Your task to perform on an android device: Go to Reddit.com Image 0: 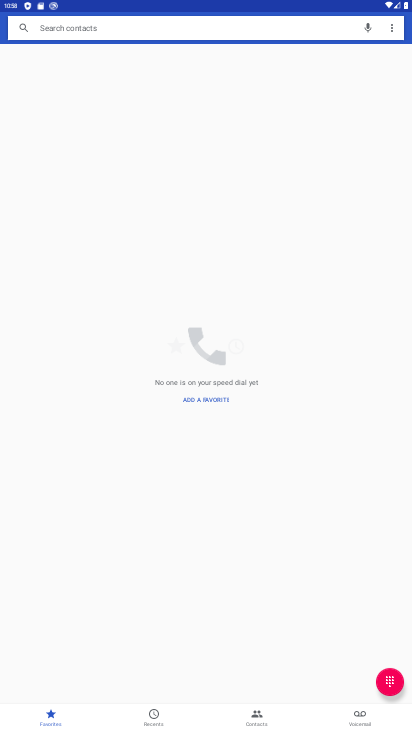
Step 0: press home button
Your task to perform on an android device: Go to Reddit.com Image 1: 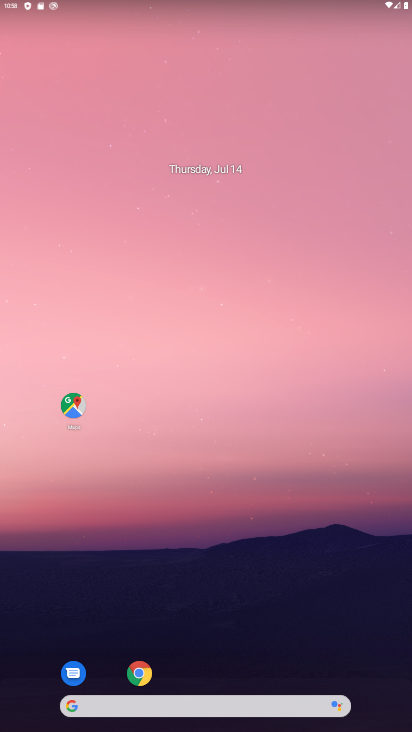
Step 1: click (142, 676)
Your task to perform on an android device: Go to Reddit.com Image 2: 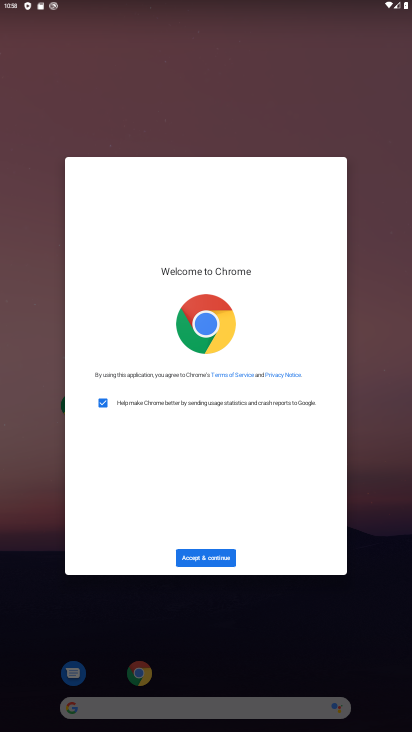
Step 2: click (219, 559)
Your task to perform on an android device: Go to Reddit.com Image 3: 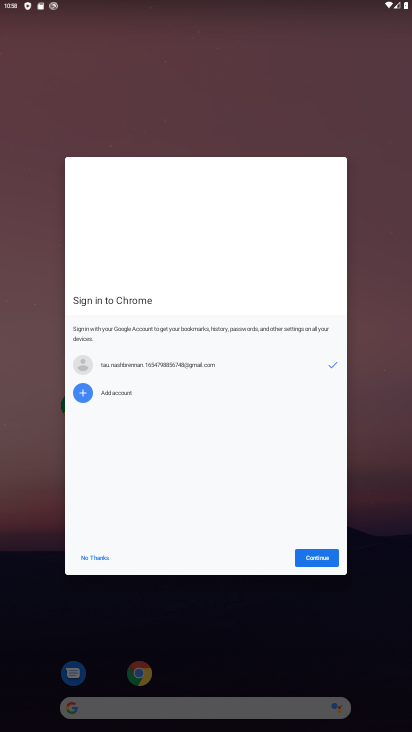
Step 3: click (315, 561)
Your task to perform on an android device: Go to Reddit.com Image 4: 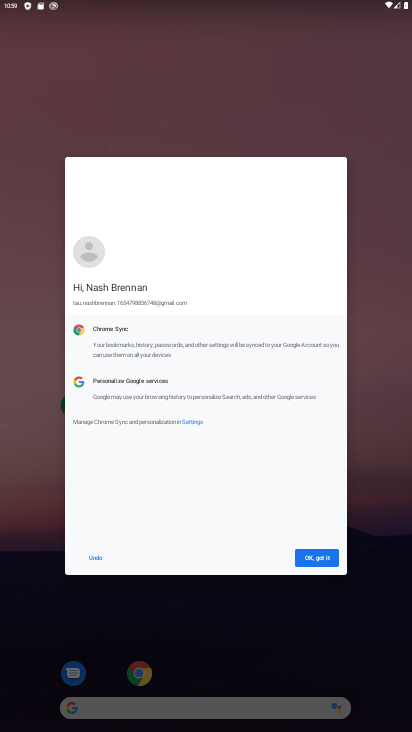
Step 4: click (315, 561)
Your task to perform on an android device: Go to Reddit.com Image 5: 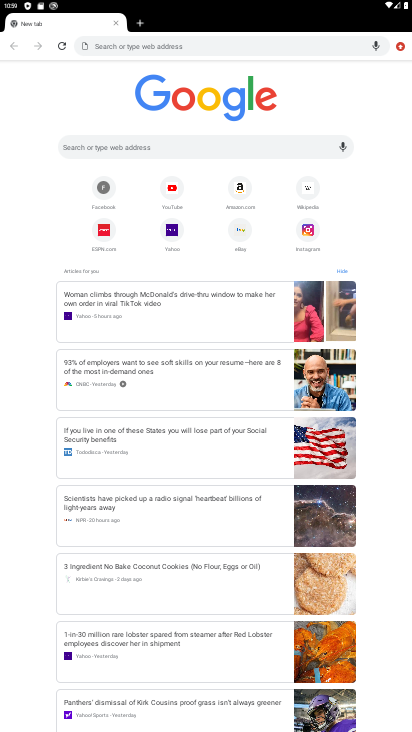
Step 5: click (222, 141)
Your task to perform on an android device: Go to Reddit.com Image 6: 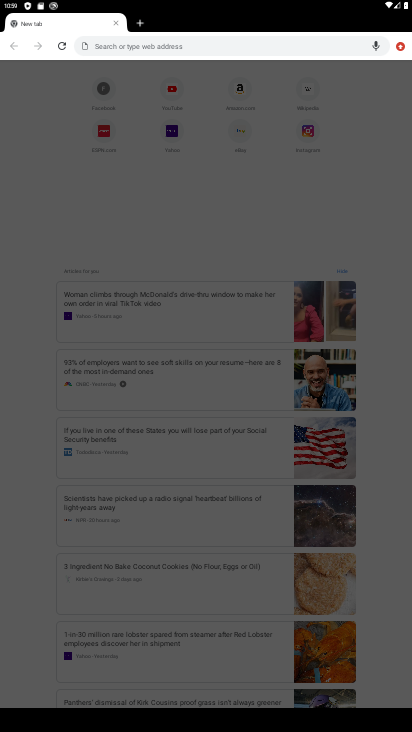
Step 6: type "reddit.com"
Your task to perform on an android device: Go to Reddit.com Image 7: 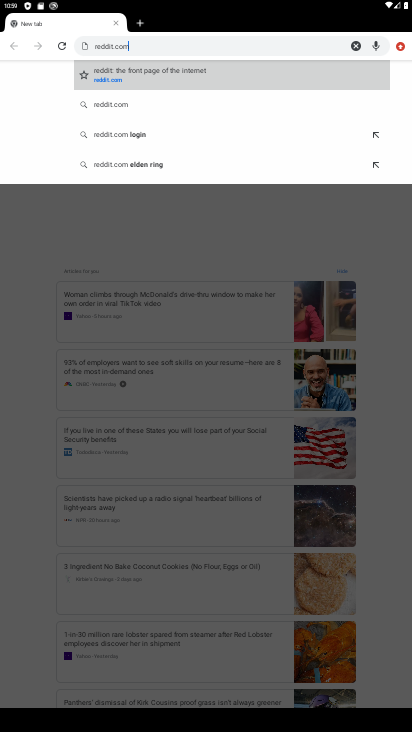
Step 7: click (110, 73)
Your task to perform on an android device: Go to Reddit.com Image 8: 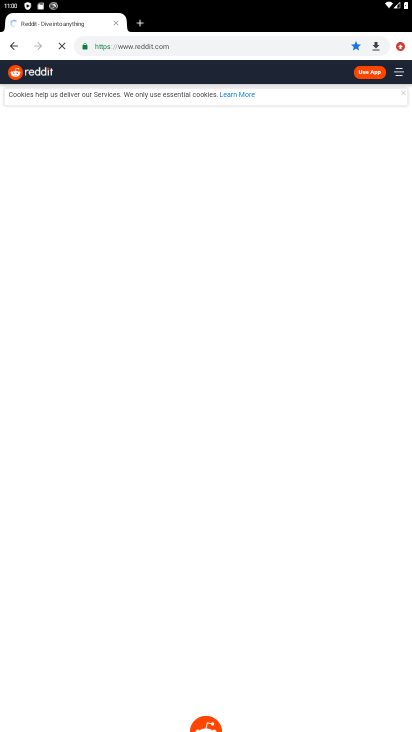
Step 8: task complete